Your task to perform on an android device: Go to internet settings Image 0: 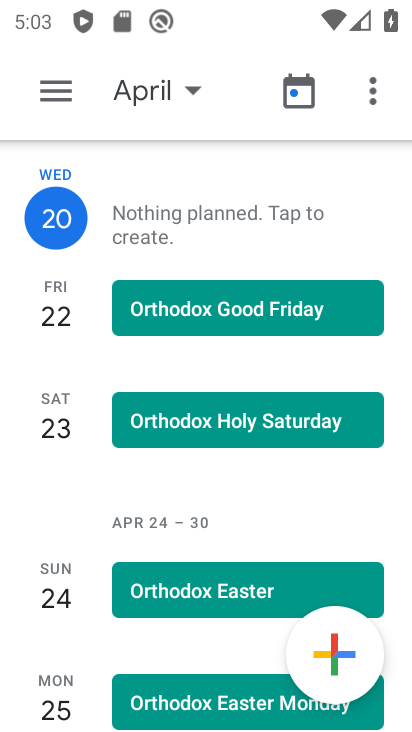
Step 0: press home button
Your task to perform on an android device: Go to internet settings Image 1: 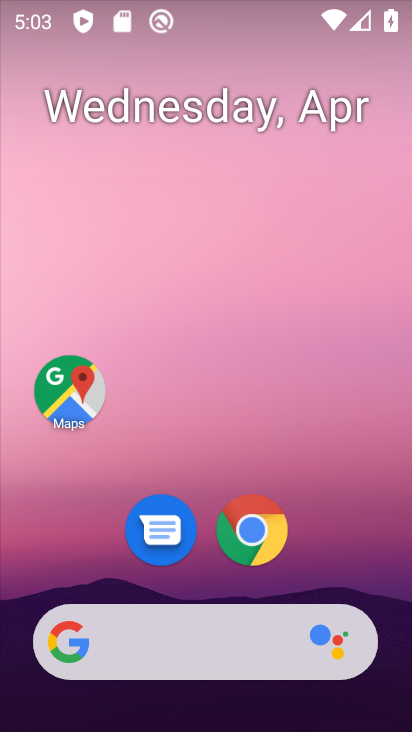
Step 1: drag from (297, 379) to (199, 2)
Your task to perform on an android device: Go to internet settings Image 2: 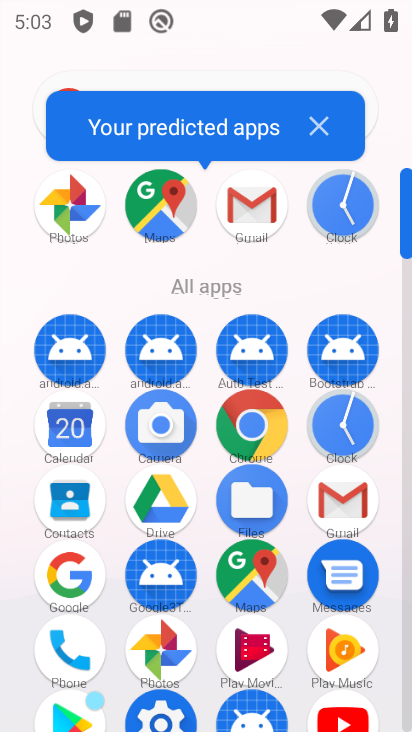
Step 2: drag from (300, 472) to (324, 132)
Your task to perform on an android device: Go to internet settings Image 3: 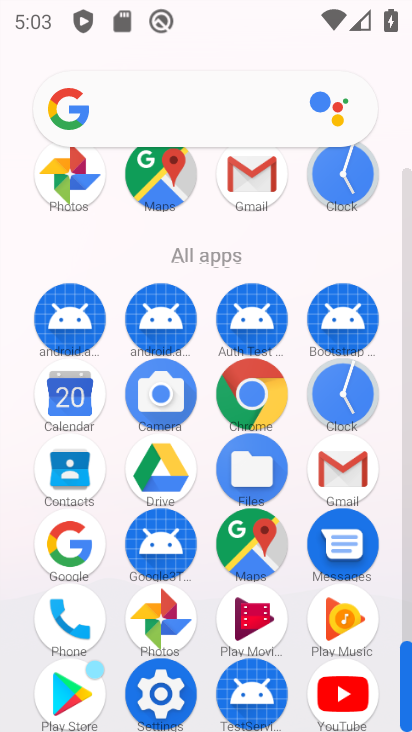
Step 3: click (160, 688)
Your task to perform on an android device: Go to internet settings Image 4: 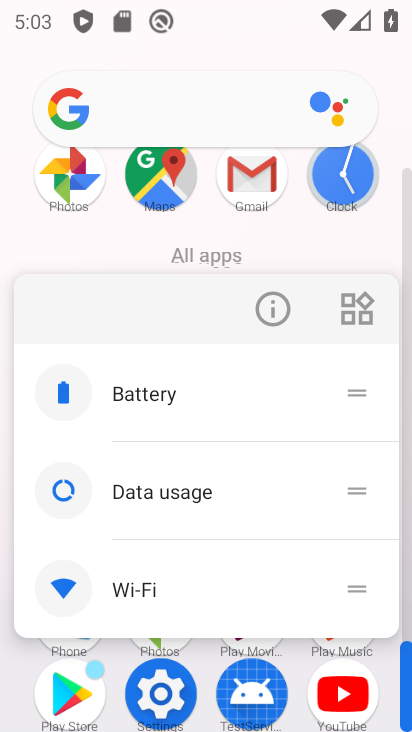
Step 4: click (160, 688)
Your task to perform on an android device: Go to internet settings Image 5: 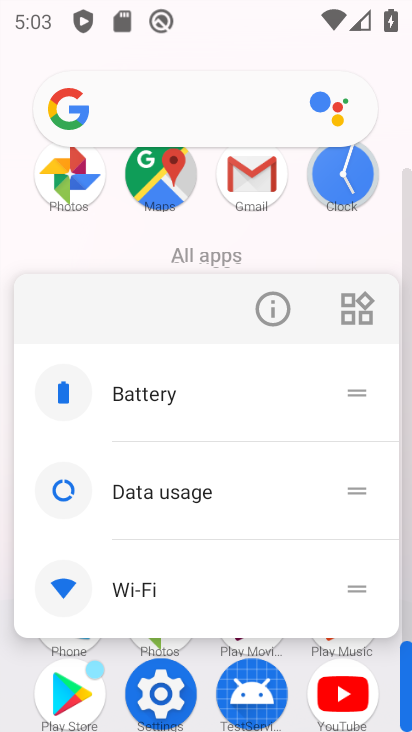
Step 5: click (164, 701)
Your task to perform on an android device: Go to internet settings Image 6: 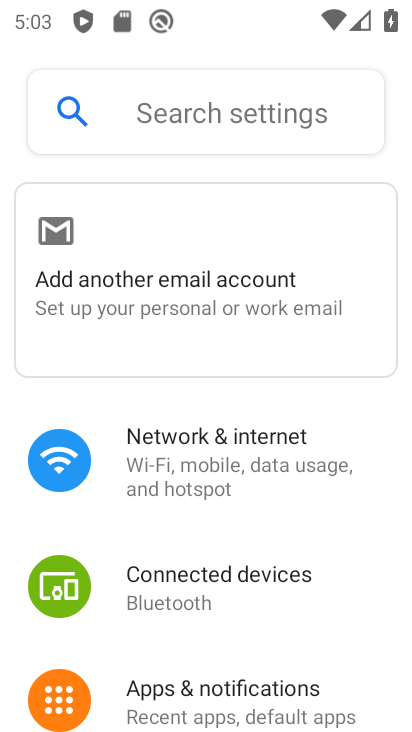
Step 6: click (249, 440)
Your task to perform on an android device: Go to internet settings Image 7: 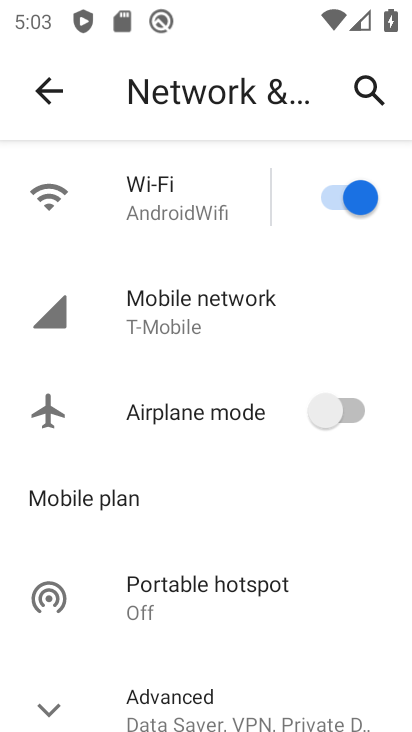
Step 7: task complete